Your task to perform on an android device: toggle airplane mode Image 0: 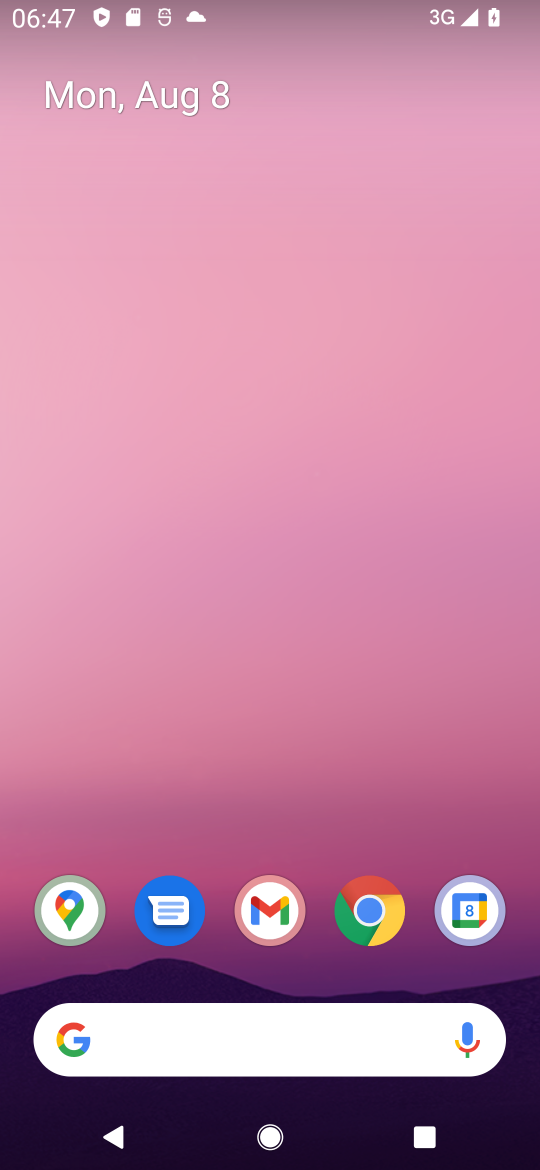
Step 0: drag from (255, 1049) to (298, 502)
Your task to perform on an android device: toggle airplane mode Image 1: 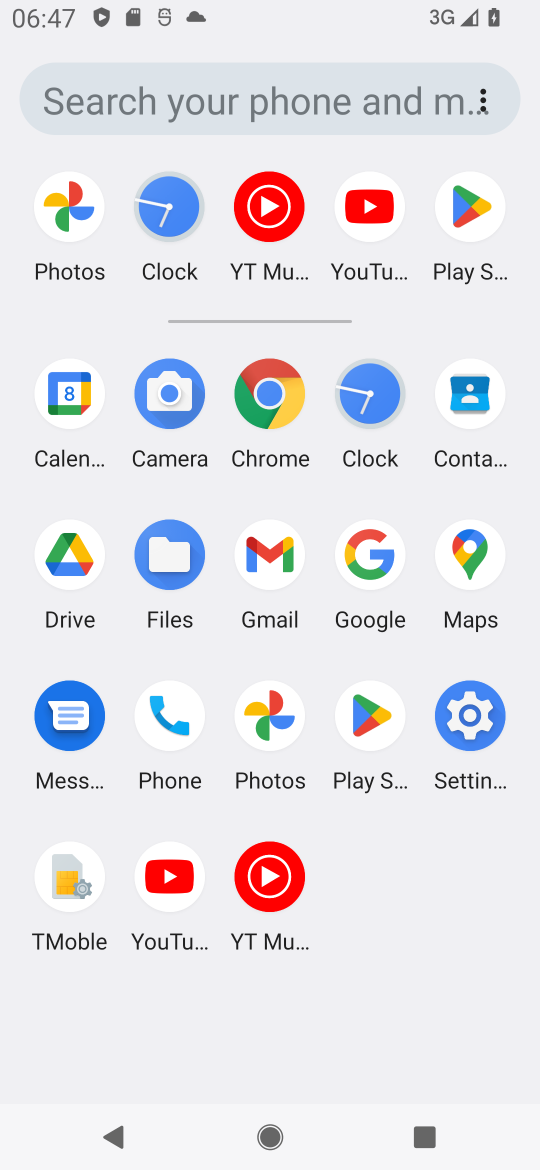
Step 1: click (466, 713)
Your task to perform on an android device: toggle airplane mode Image 2: 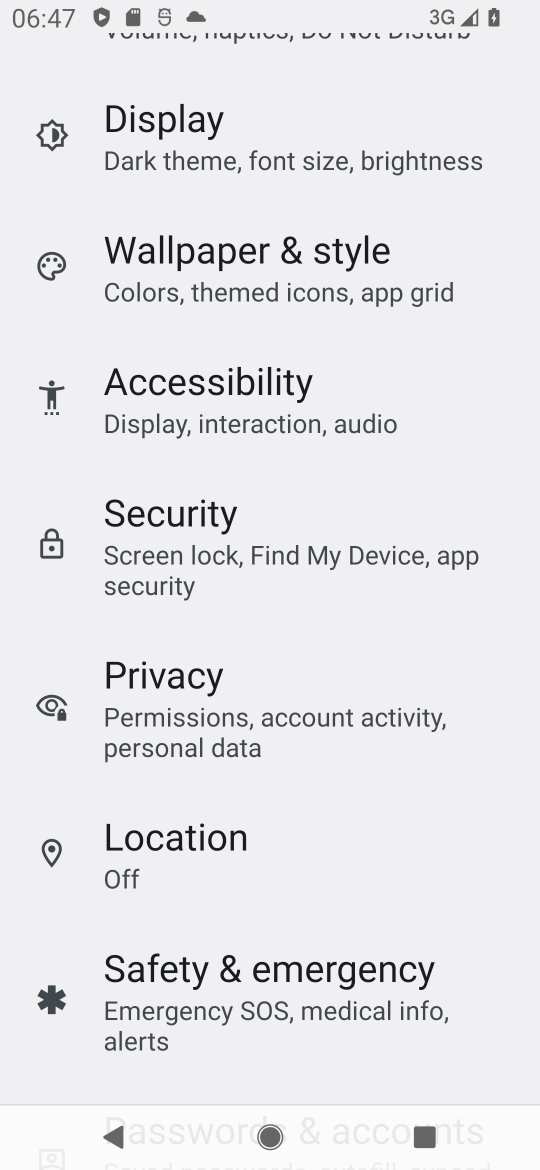
Step 2: drag from (351, 442) to (343, 631)
Your task to perform on an android device: toggle airplane mode Image 3: 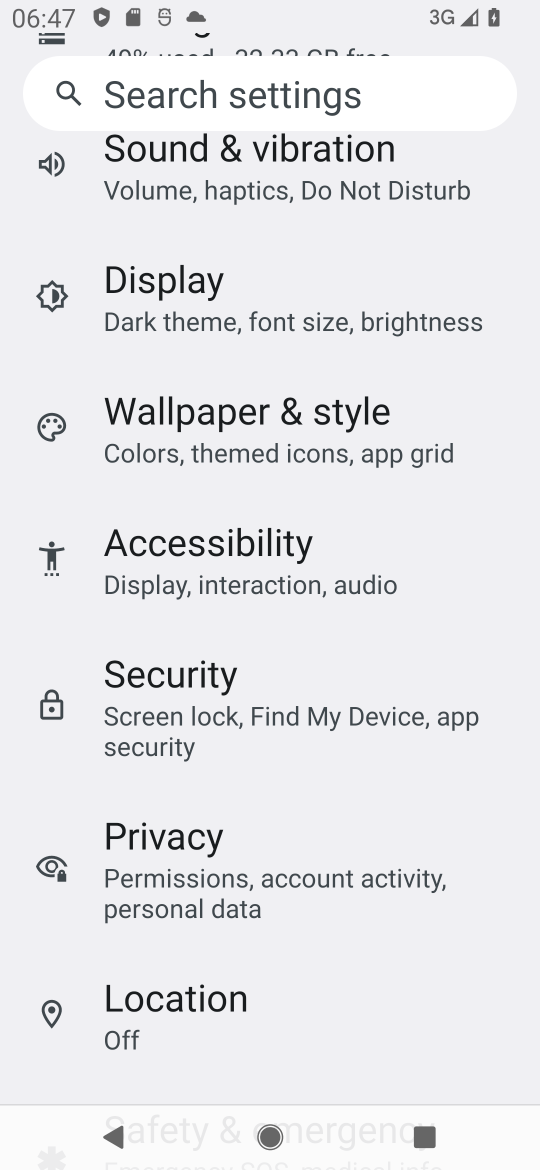
Step 3: drag from (358, 271) to (337, 488)
Your task to perform on an android device: toggle airplane mode Image 4: 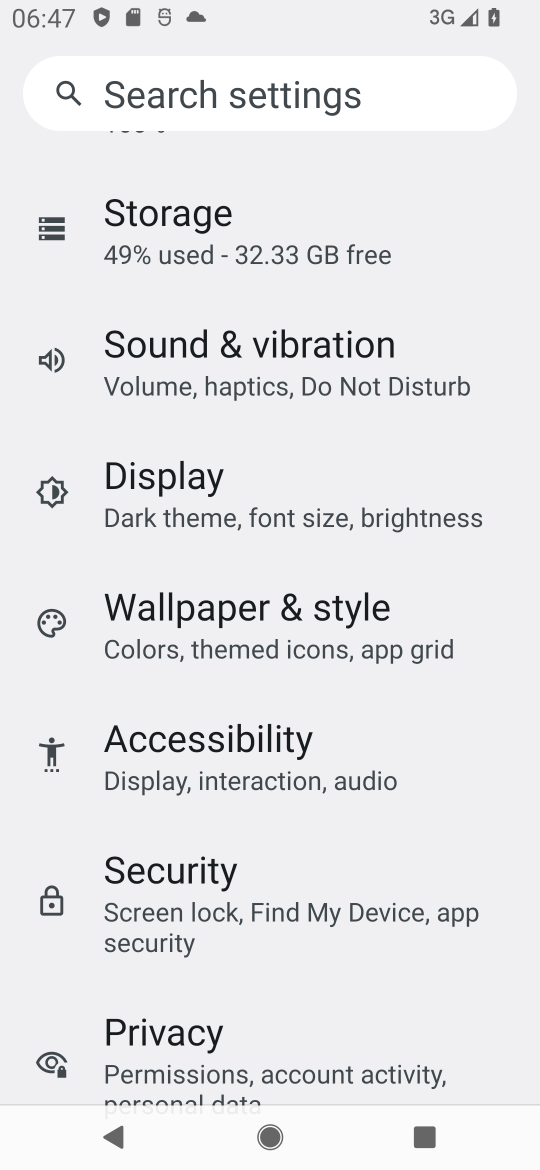
Step 4: drag from (308, 235) to (283, 502)
Your task to perform on an android device: toggle airplane mode Image 5: 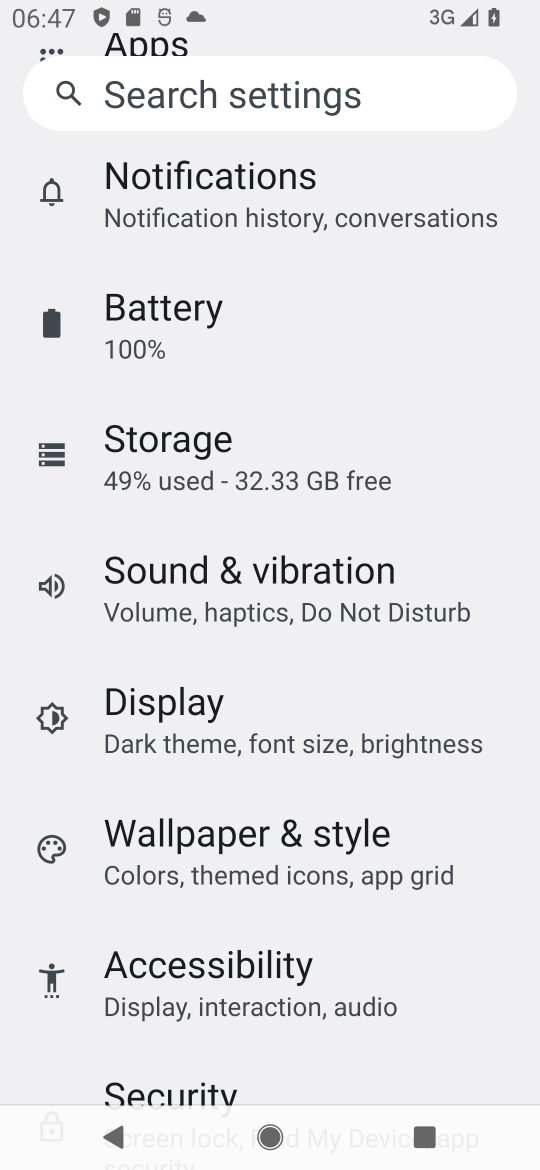
Step 5: drag from (283, 322) to (315, 515)
Your task to perform on an android device: toggle airplane mode Image 6: 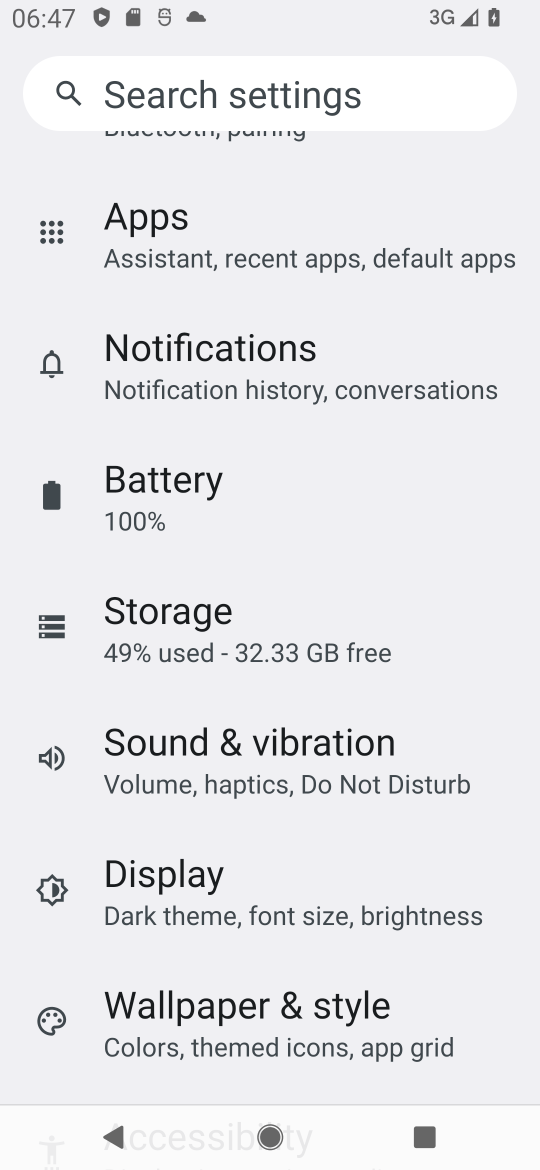
Step 6: drag from (294, 370) to (340, 501)
Your task to perform on an android device: toggle airplane mode Image 7: 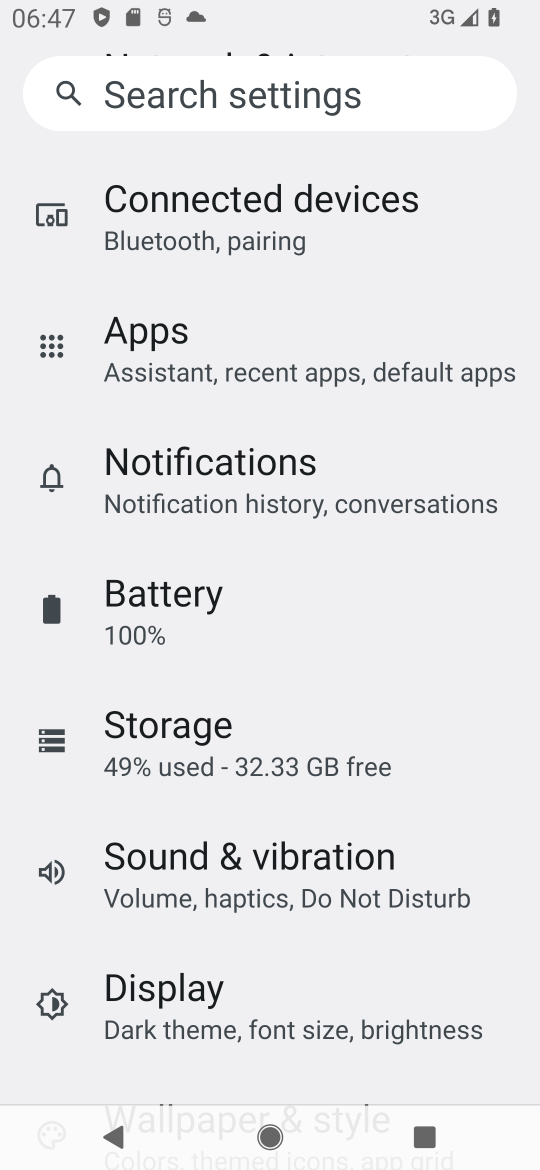
Step 7: drag from (270, 309) to (293, 588)
Your task to perform on an android device: toggle airplane mode Image 8: 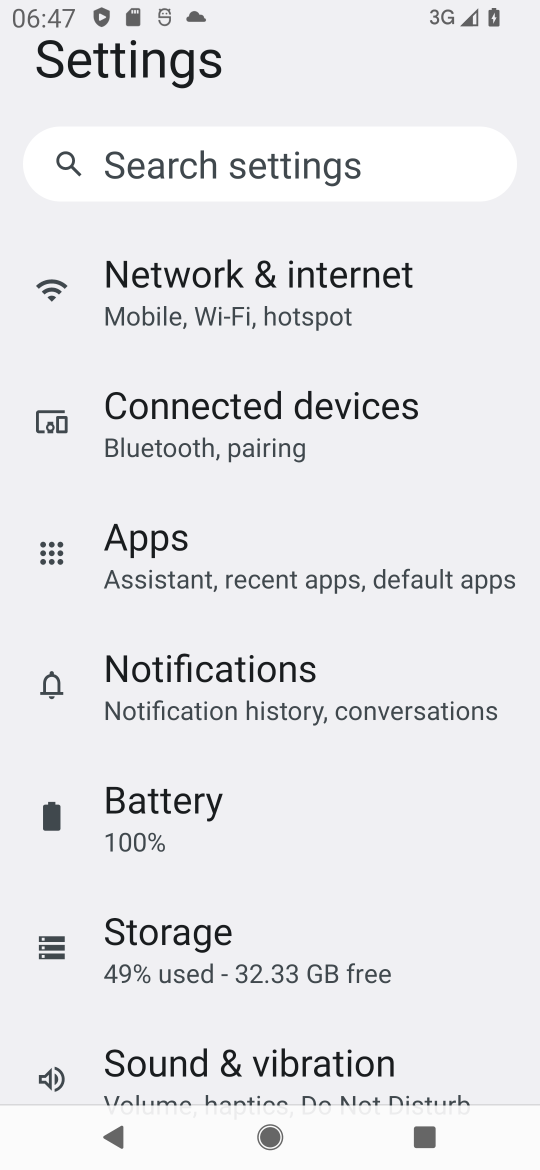
Step 8: click (254, 292)
Your task to perform on an android device: toggle airplane mode Image 9: 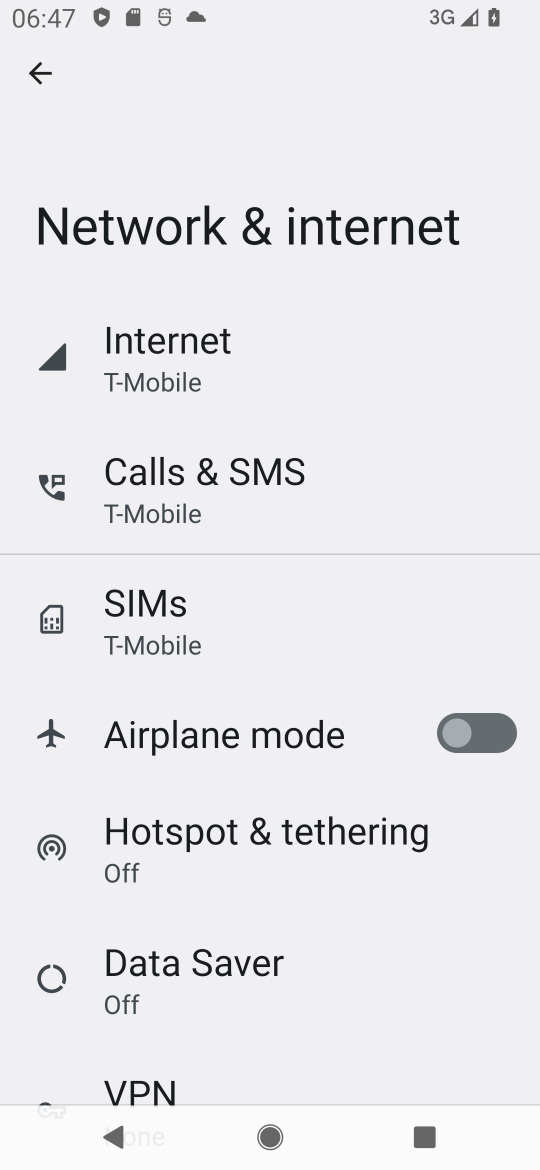
Step 9: click (445, 741)
Your task to perform on an android device: toggle airplane mode Image 10: 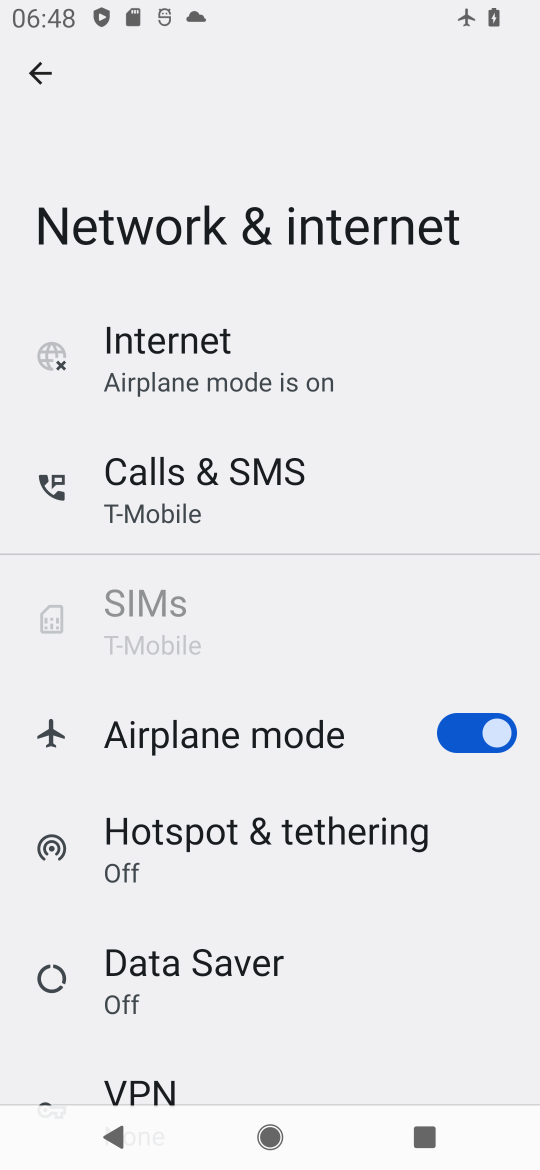
Step 10: task complete